Your task to perform on an android device: Open the Play Movies app and select the watchlist tab. Image 0: 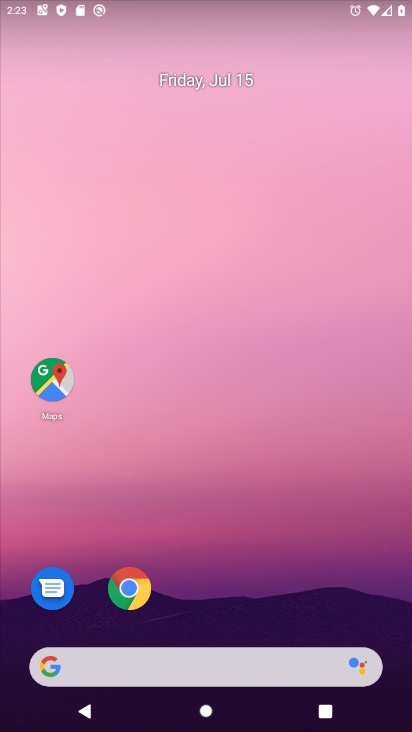
Step 0: drag from (227, 666) to (261, 12)
Your task to perform on an android device: Open the Play Movies app and select the watchlist tab. Image 1: 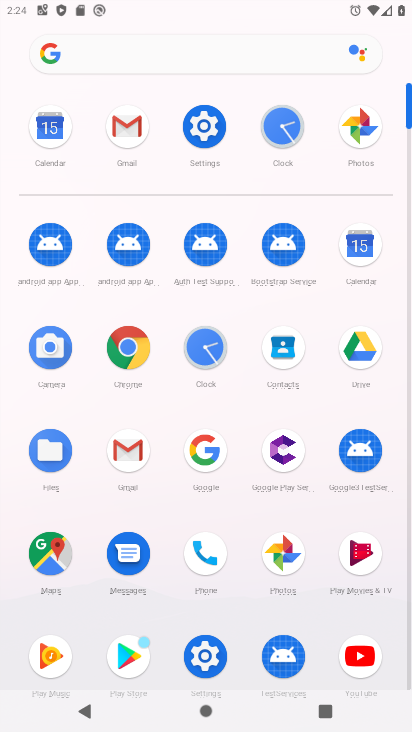
Step 1: click (358, 551)
Your task to perform on an android device: Open the Play Movies app and select the watchlist tab. Image 2: 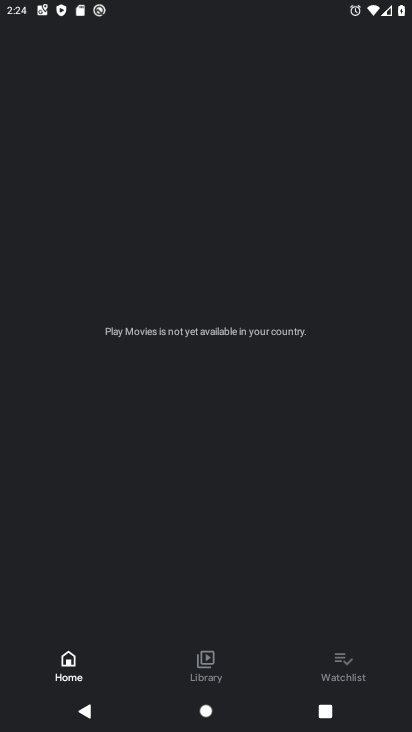
Step 2: click (344, 657)
Your task to perform on an android device: Open the Play Movies app and select the watchlist tab. Image 3: 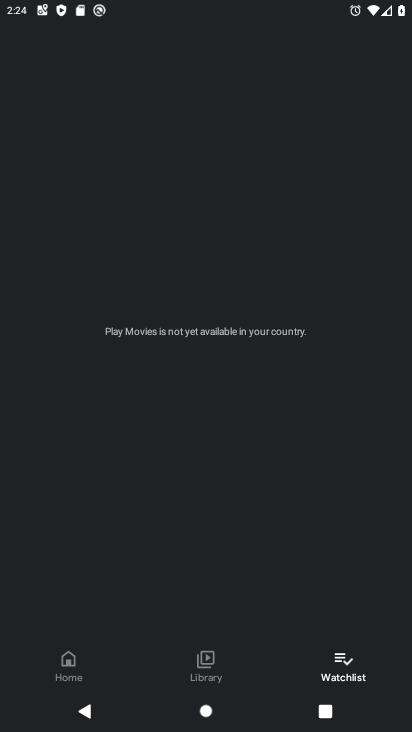
Step 3: task complete